Your task to perform on an android device: allow notifications from all sites in the chrome app Image 0: 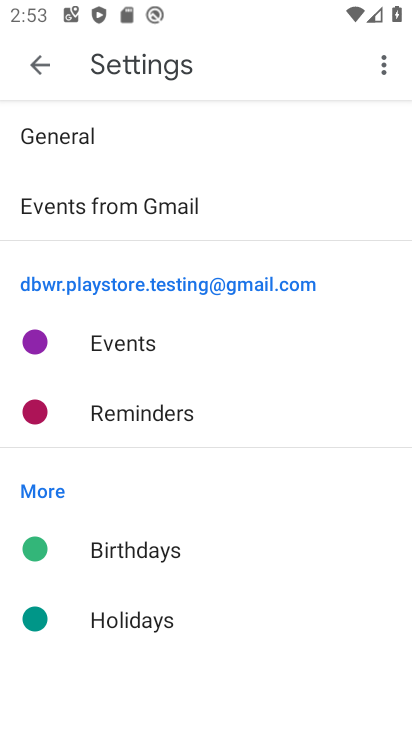
Step 0: press home button
Your task to perform on an android device: allow notifications from all sites in the chrome app Image 1: 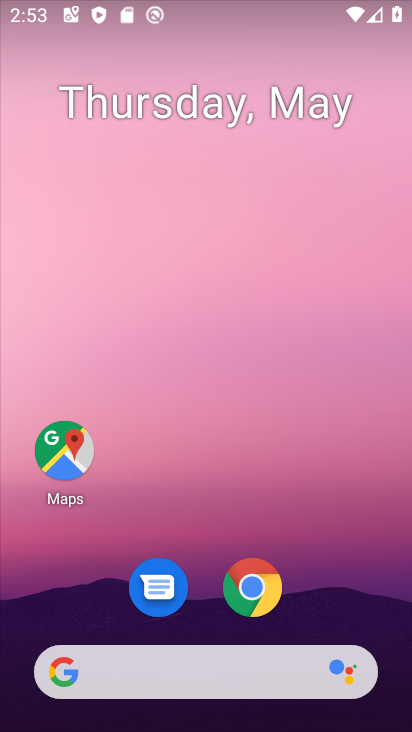
Step 1: drag from (343, 623) to (323, 523)
Your task to perform on an android device: allow notifications from all sites in the chrome app Image 2: 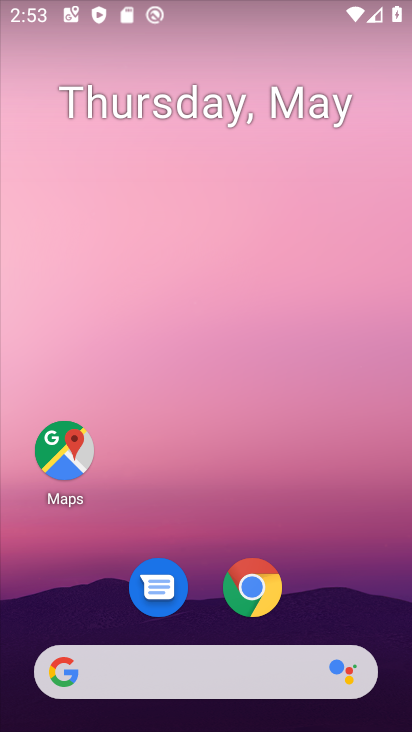
Step 2: click (264, 575)
Your task to perform on an android device: allow notifications from all sites in the chrome app Image 3: 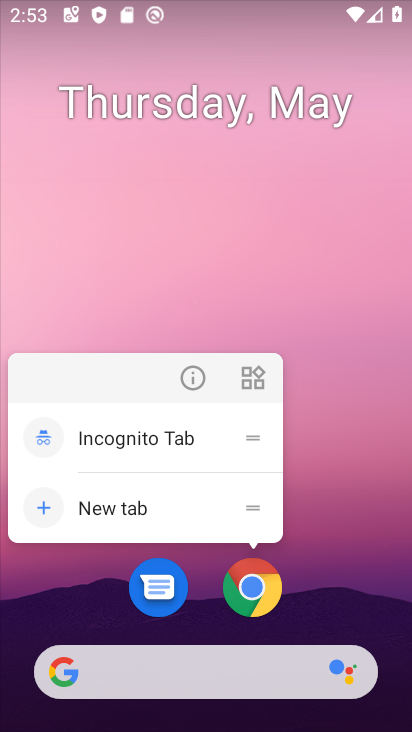
Step 3: click (197, 375)
Your task to perform on an android device: allow notifications from all sites in the chrome app Image 4: 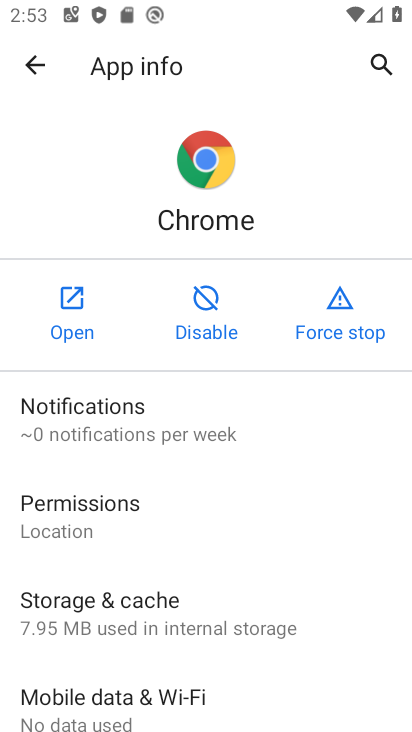
Step 4: drag from (203, 648) to (175, 186)
Your task to perform on an android device: allow notifications from all sites in the chrome app Image 5: 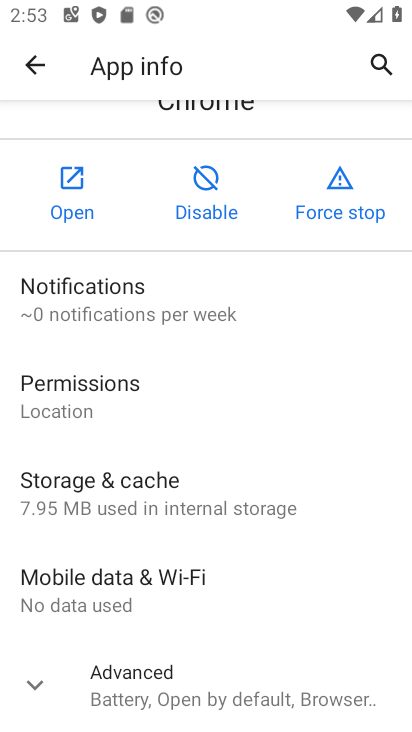
Step 5: drag from (161, 692) to (137, 293)
Your task to perform on an android device: allow notifications from all sites in the chrome app Image 6: 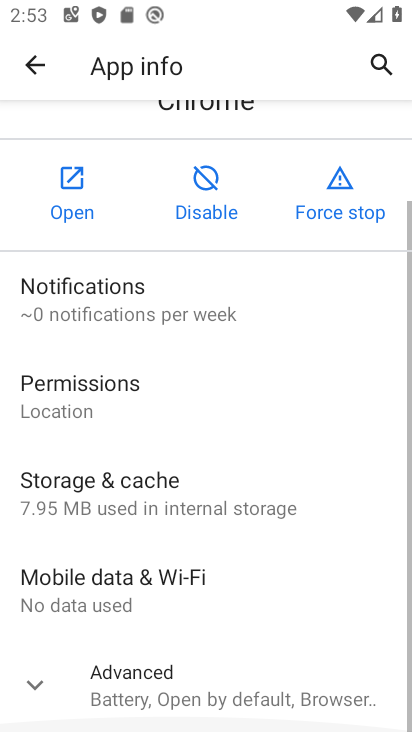
Step 6: click (137, 287)
Your task to perform on an android device: allow notifications from all sites in the chrome app Image 7: 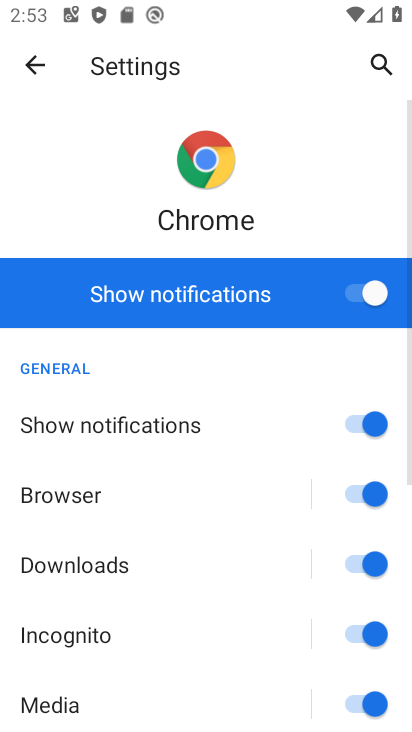
Step 7: task complete